Your task to perform on an android device: Open Google Chrome and open the bookmarks view Image 0: 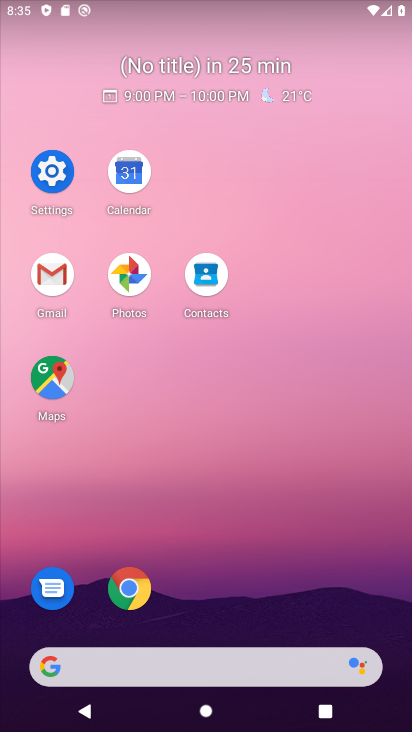
Step 0: click (138, 585)
Your task to perform on an android device: Open Google Chrome and open the bookmarks view Image 1: 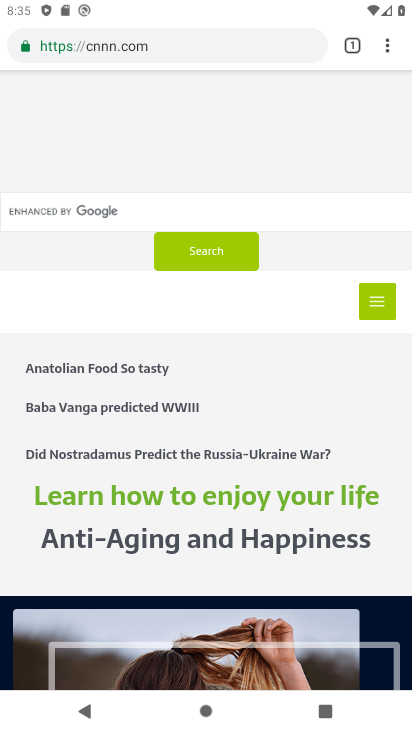
Step 1: click (380, 42)
Your task to perform on an android device: Open Google Chrome and open the bookmarks view Image 2: 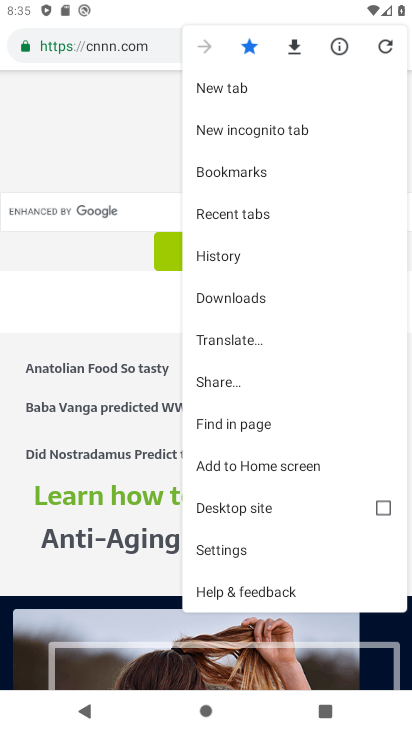
Step 2: click (329, 163)
Your task to perform on an android device: Open Google Chrome and open the bookmarks view Image 3: 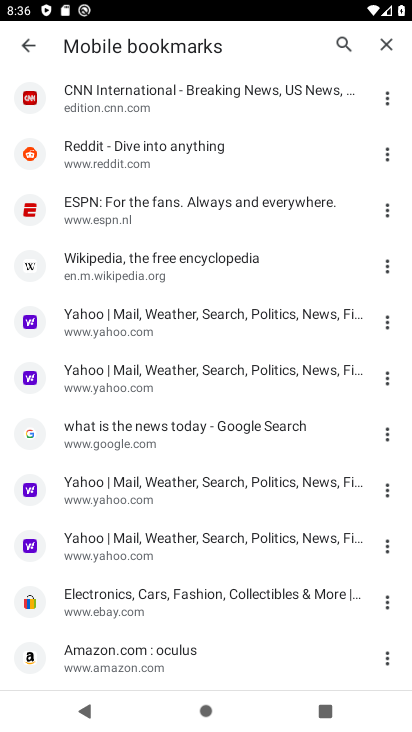
Step 3: task complete